Your task to perform on an android device: check google app version Image 0: 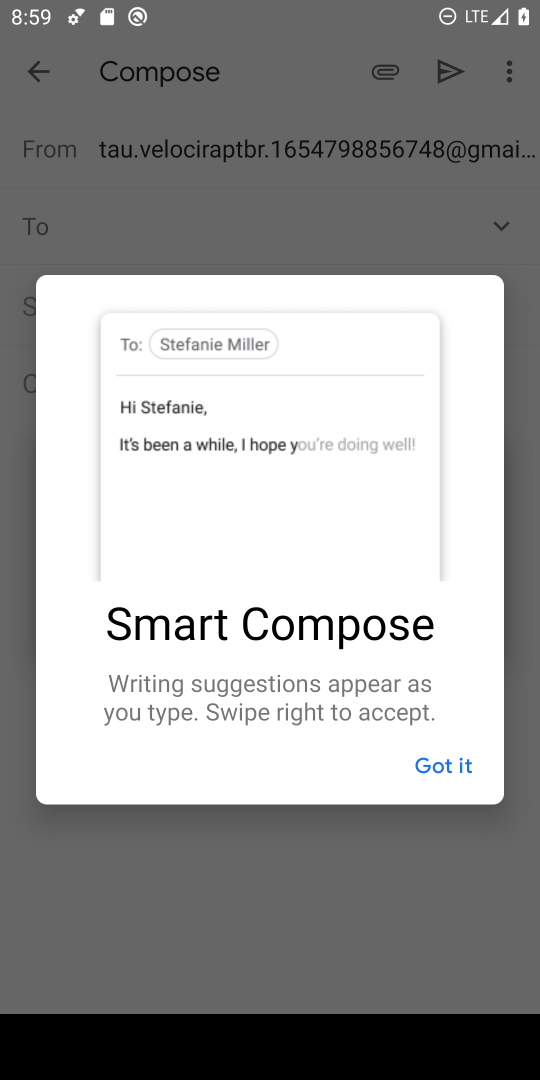
Step 0: press home button
Your task to perform on an android device: check google app version Image 1: 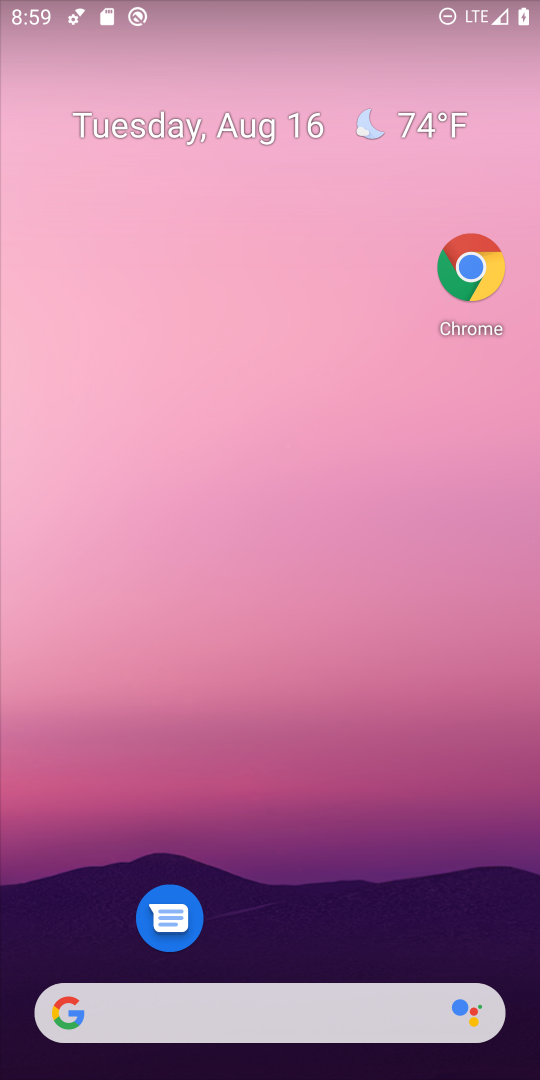
Step 1: drag from (327, 878) to (308, 35)
Your task to perform on an android device: check google app version Image 2: 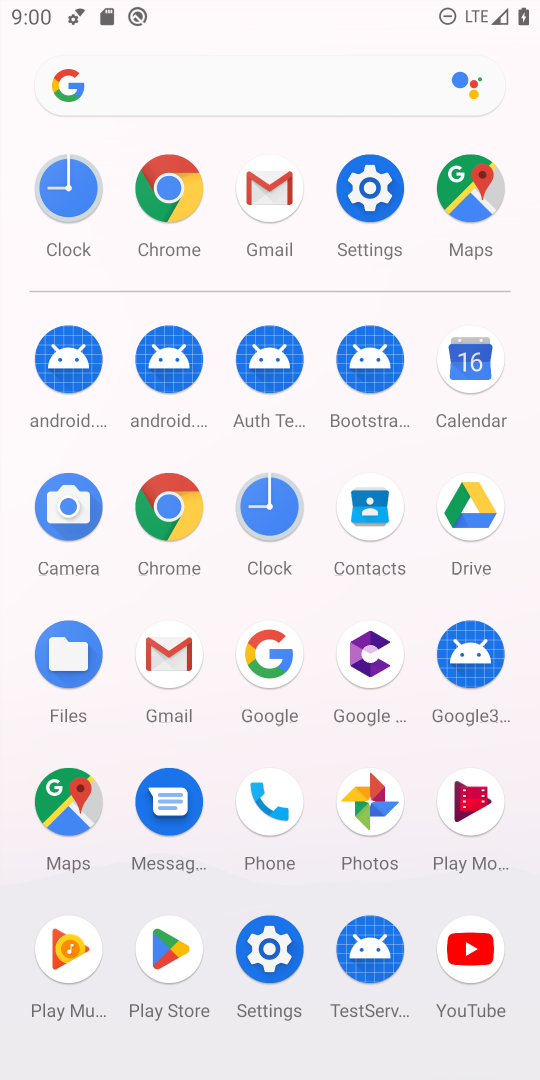
Step 2: click (287, 666)
Your task to perform on an android device: check google app version Image 3: 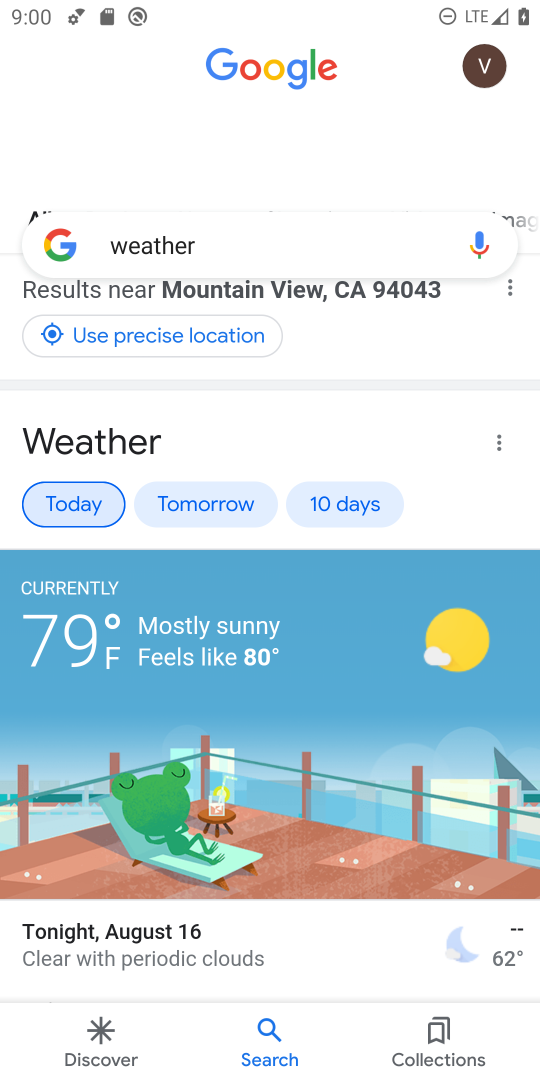
Step 3: click (496, 76)
Your task to perform on an android device: check google app version Image 4: 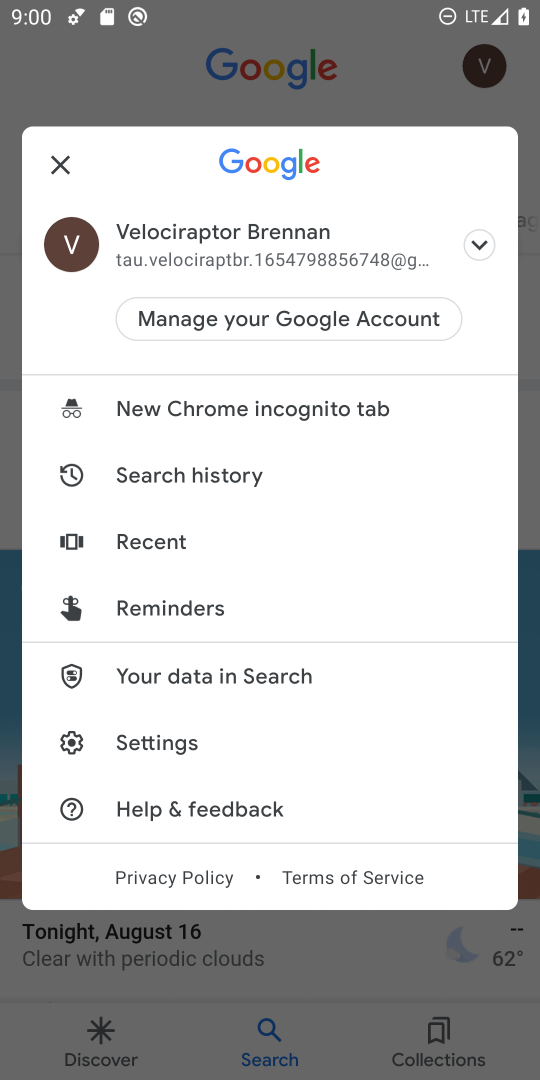
Step 4: click (166, 730)
Your task to perform on an android device: check google app version Image 5: 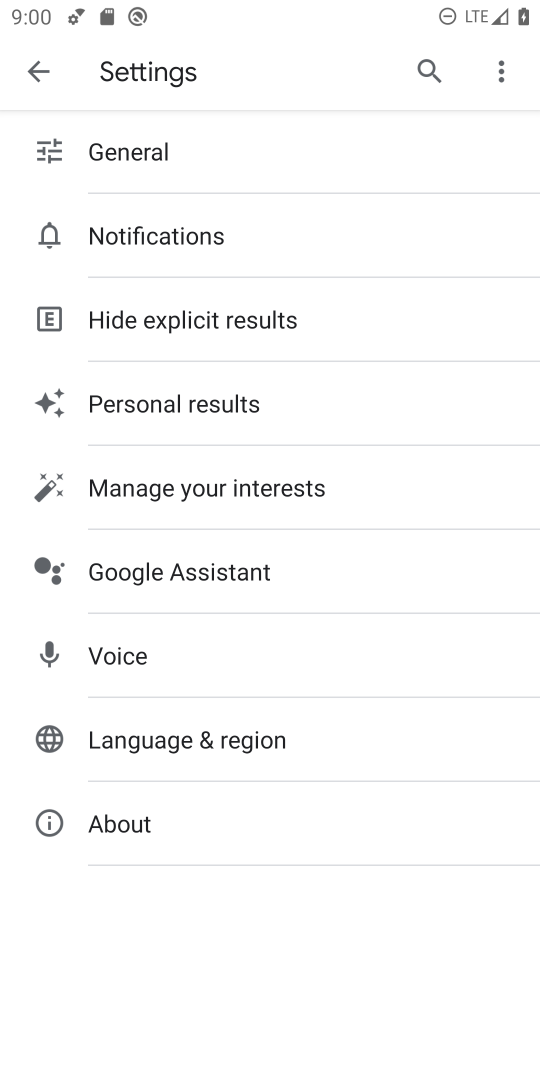
Step 5: click (138, 834)
Your task to perform on an android device: check google app version Image 6: 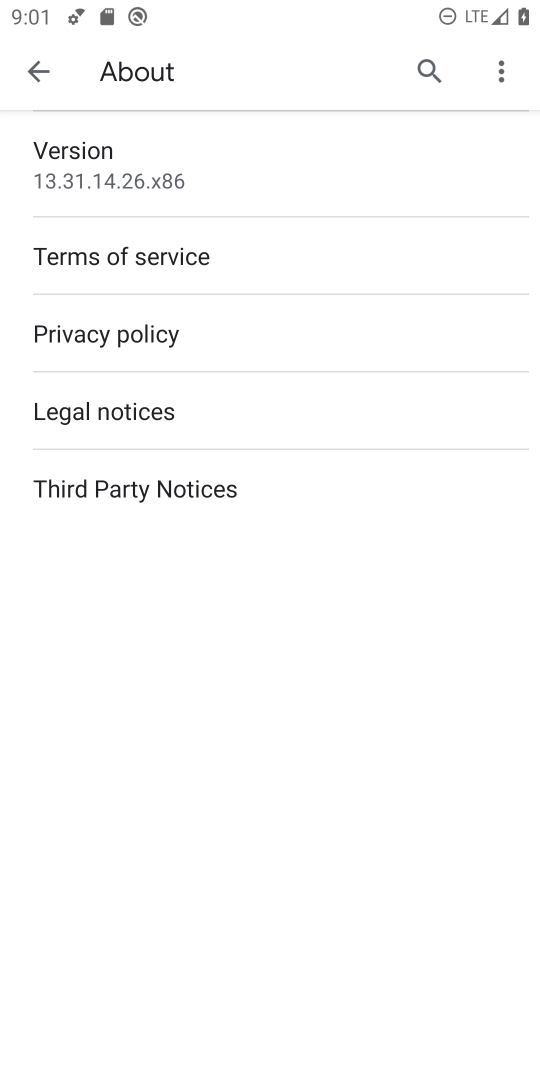
Step 6: task complete